Your task to perform on an android device: Open settings on Google Maps Image 0: 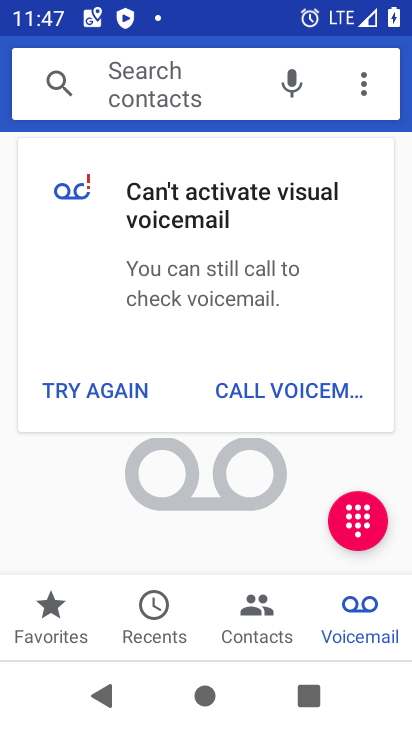
Step 0: press home button
Your task to perform on an android device: Open settings on Google Maps Image 1: 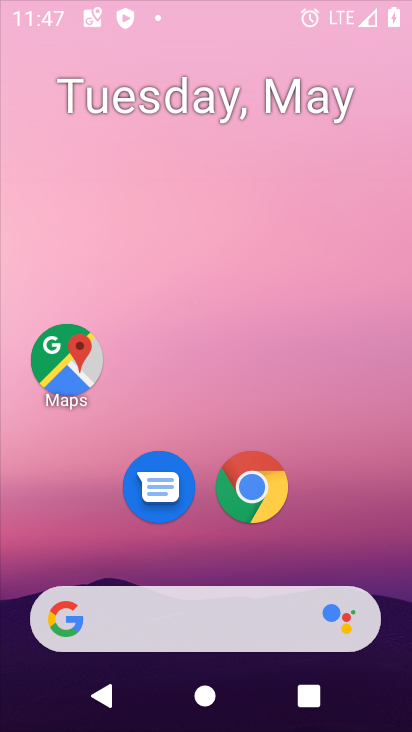
Step 1: drag from (199, 558) to (305, 58)
Your task to perform on an android device: Open settings on Google Maps Image 2: 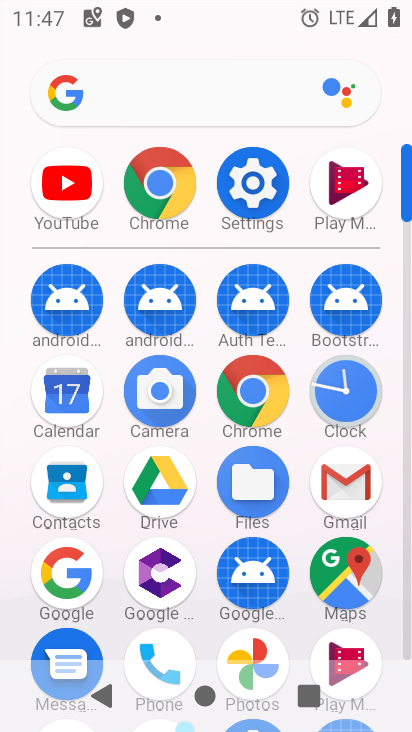
Step 2: click (350, 583)
Your task to perform on an android device: Open settings on Google Maps Image 3: 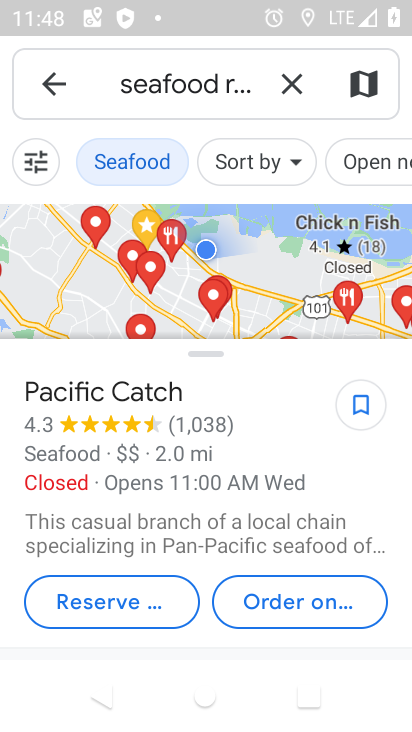
Step 3: click (50, 87)
Your task to perform on an android device: Open settings on Google Maps Image 4: 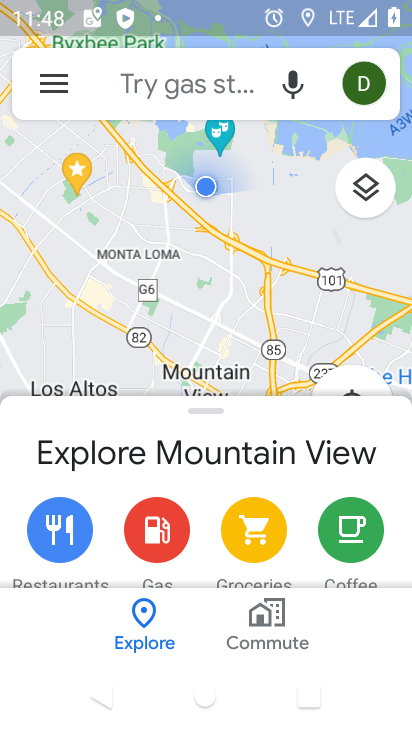
Step 4: click (54, 91)
Your task to perform on an android device: Open settings on Google Maps Image 5: 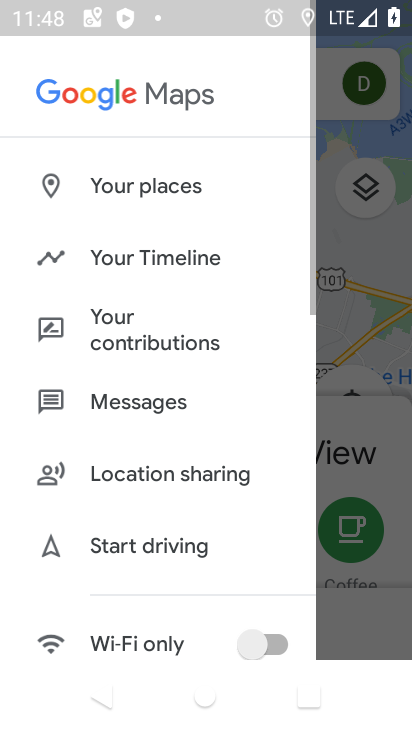
Step 5: drag from (197, 521) to (231, 69)
Your task to perform on an android device: Open settings on Google Maps Image 6: 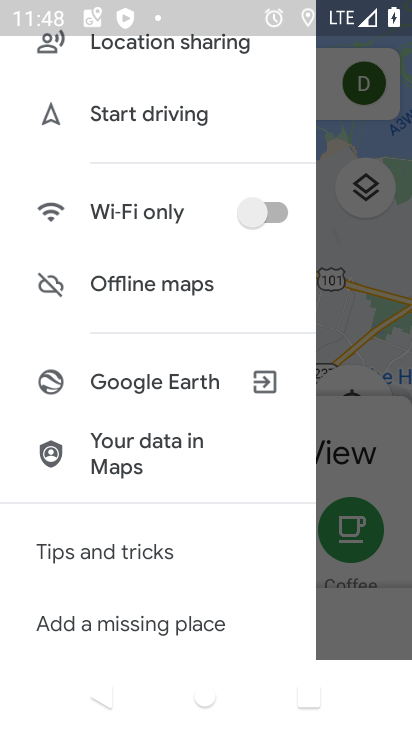
Step 6: drag from (133, 434) to (188, 184)
Your task to perform on an android device: Open settings on Google Maps Image 7: 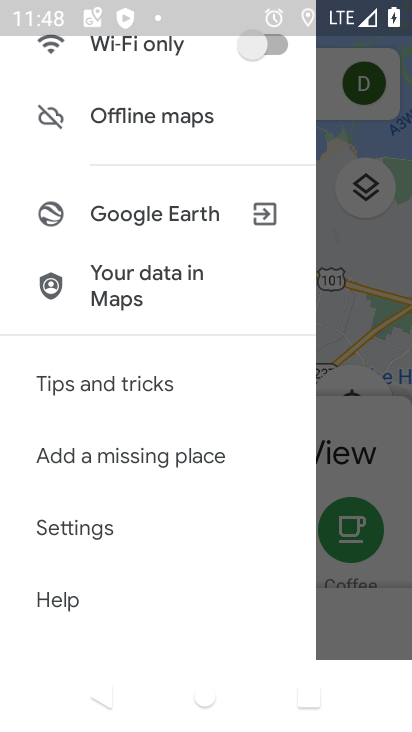
Step 7: click (124, 531)
Your task to perform on an android device: Open settings on Google Maps Image 8: 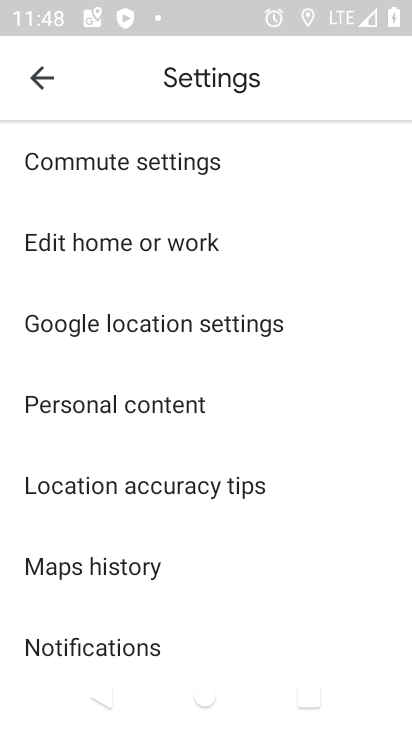
Step 8: task complete